Your task to perform on an android device: Open calendar and show me the fourth week of next month Image 0: 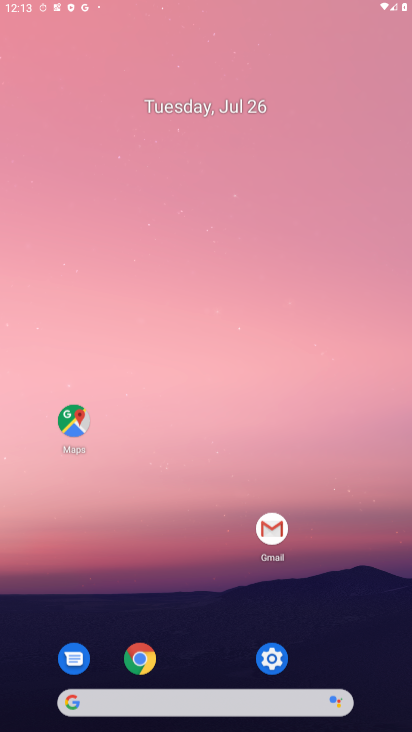
Step 0: press home button
Your task to perform on an android device: Open calendar and show me the fourth week of next month Image 1: 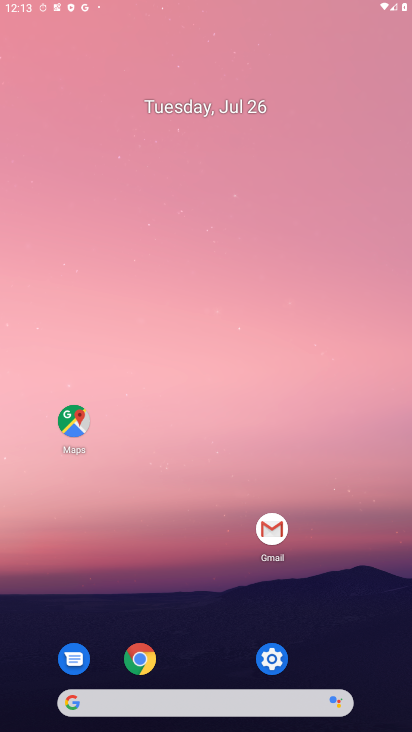
Step 1: click (285, 520)
Your task to perform on an android device: Open calendar and show me the fourth week of next month Image 2: 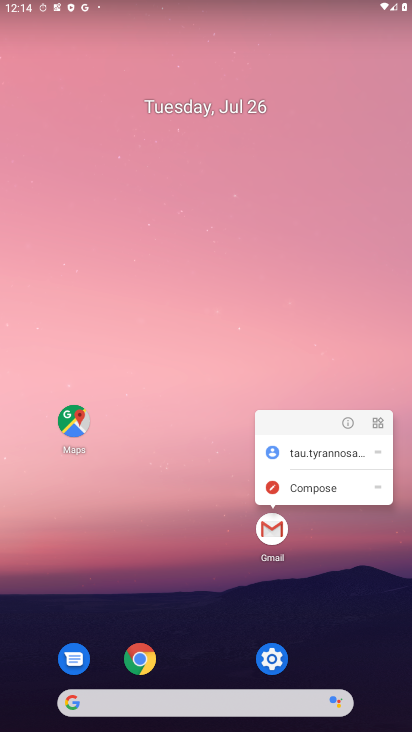
Step 2: click (269, 528)
Your task to perform on an android device: Open calendar and show me the fourth week of next month Image 3: 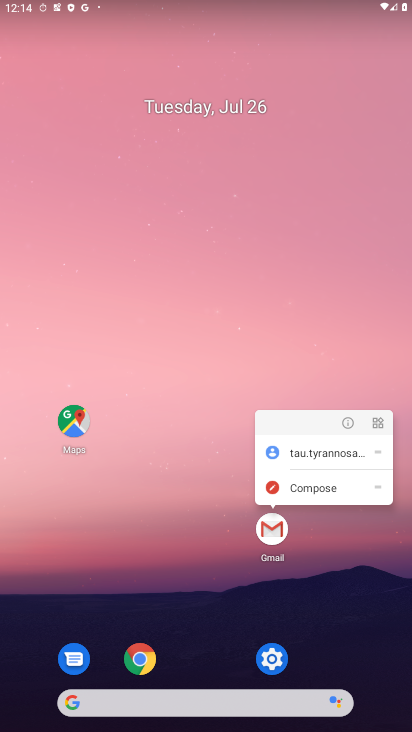
Step 3: press home button
Your task to perform on an android device: Open calendar and show me the fourth week of next month Image 4: 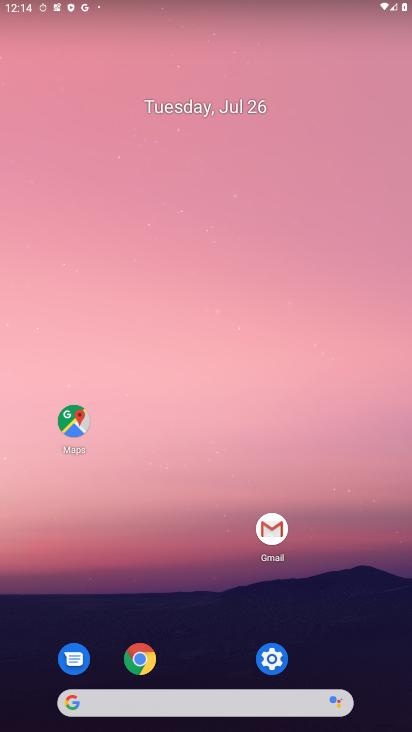
Step 4: drag from (218, 705) to (340, 213)
Your task to perform on an android device: Open calendar and show me the fourth week of next month Image 5: 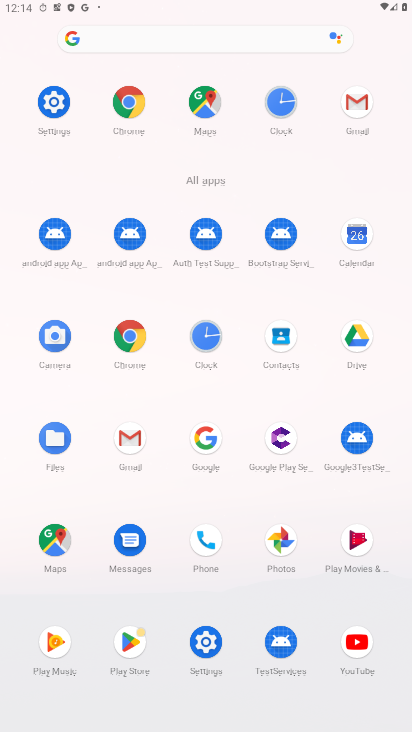
Step 5: click (353, 251)
Your task to perform on an android device: Open calendar and show me the fourth week of next month Image 6: 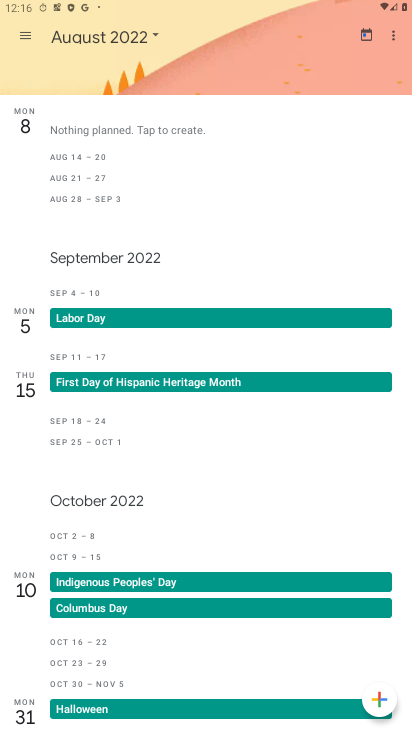
Step 6: click (24, 22)
Your task to perform on an android device: Open calendar and show me the fourth week of next month Image 7: 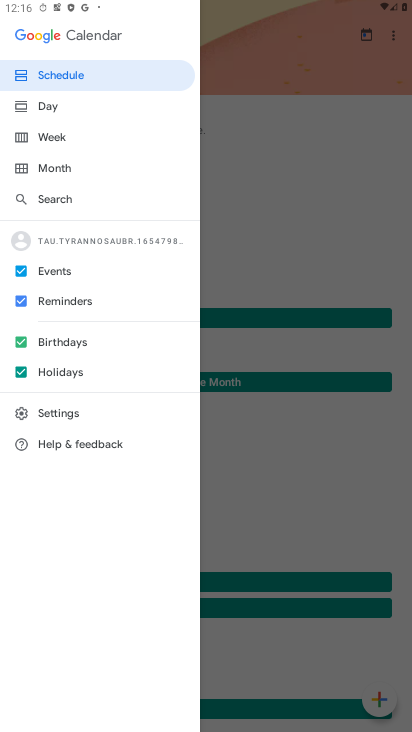
Step 7: click (75, 167)
Your task to perform on an android device: Open calendar and show me the fourth week of next month Image 8: 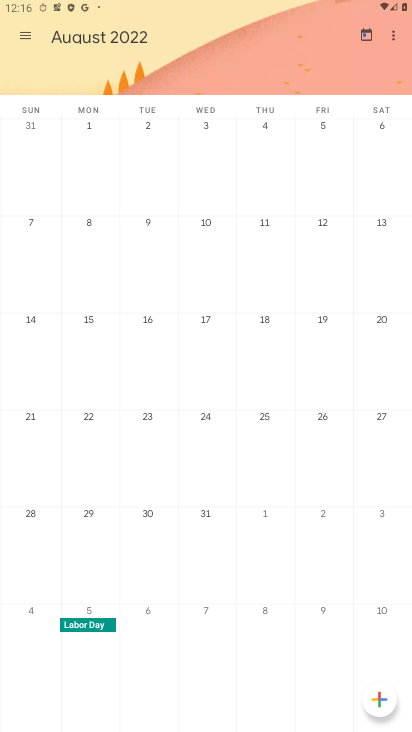
Step 8: click (90, 418)
Your task to perform on an android device: Open calendar and show me the fourth week of next month Image 9: 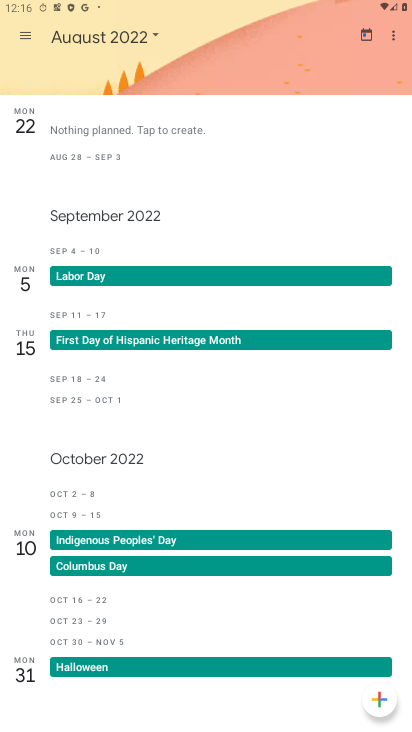
Step 9: task complete